Your task to perform on an android device: Open eBay Image 0: 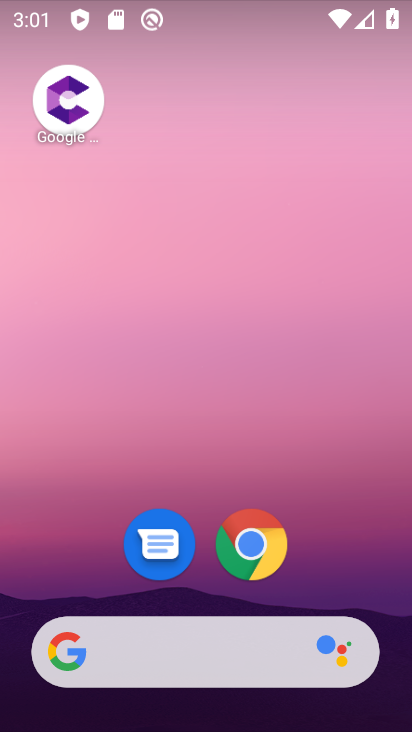
Step 0: click (253, 527)
Your task to perform on an android device: Open eBay Image 1: 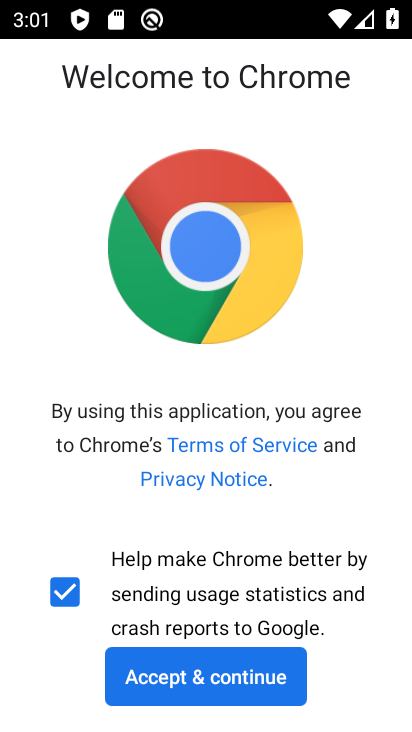
Step 1: click (248, 680)
Your task to perform on an android device: Open eBay Image 2: 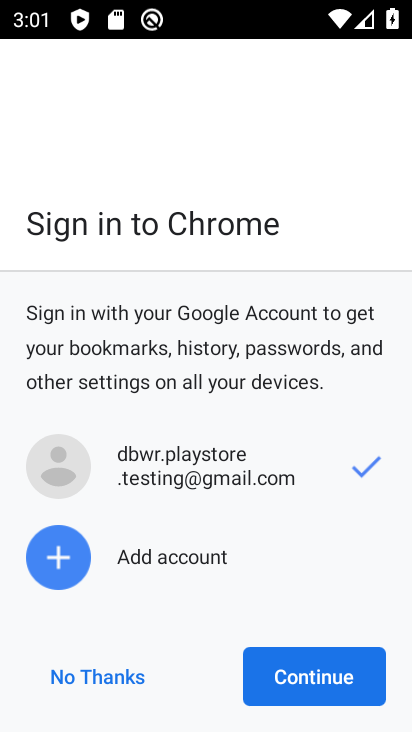
Step 2: click (239, 682)
Your task to perform on an android device: Open eBay Image 3: 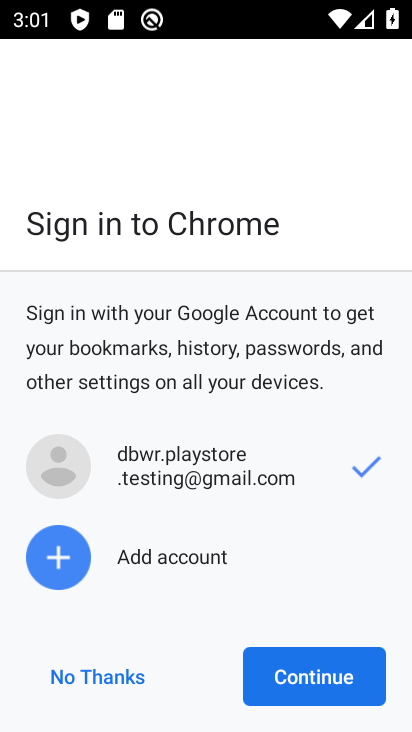
Step 3: click (298, 676)
Your task to perform on an android device: Open eBay Image 4: 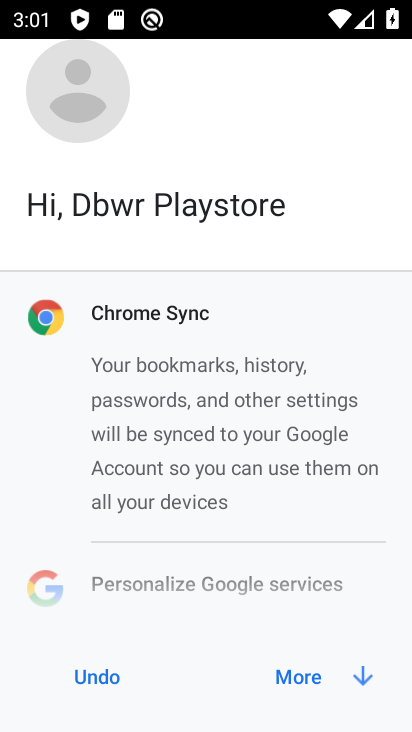
Step 4: click (298, 676)
Your task to perform on an android device: Open eBay Image 5: 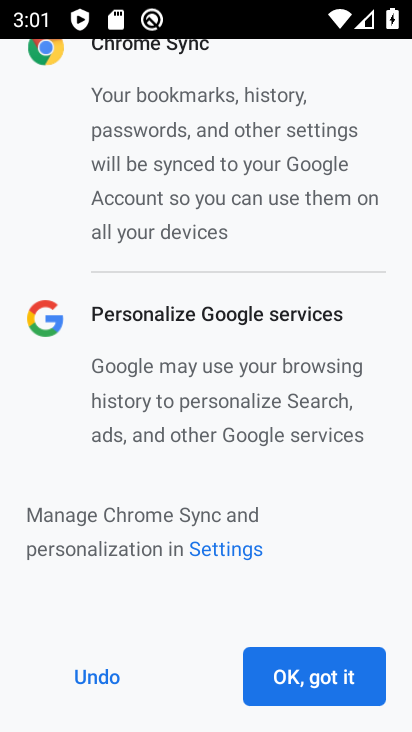
Step 5: click (298, 676)
Your task to perform on an android device: Open eBay Image 6: 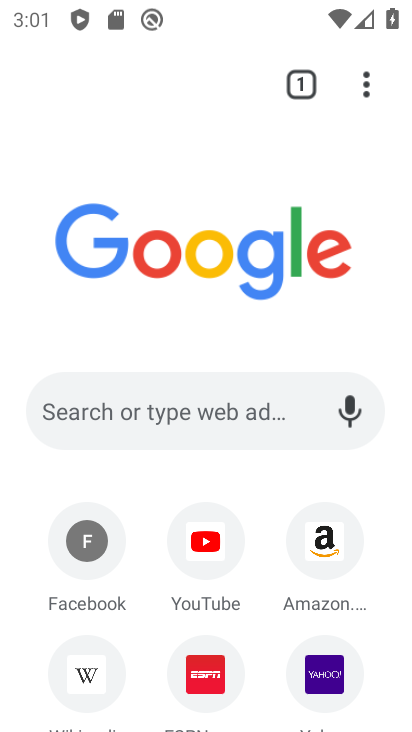
Step 6: click (218, 413)
Your task to perform on an android device: Open eBay Image 7: 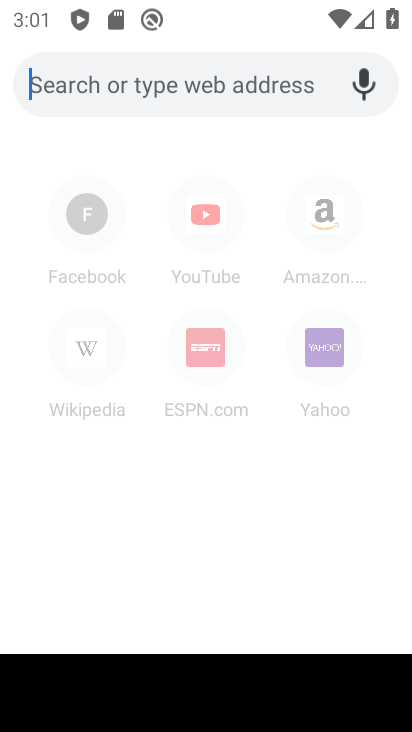
Step 7: type "eBay"
Your task to perform on an android device: Open eBay Image 8: 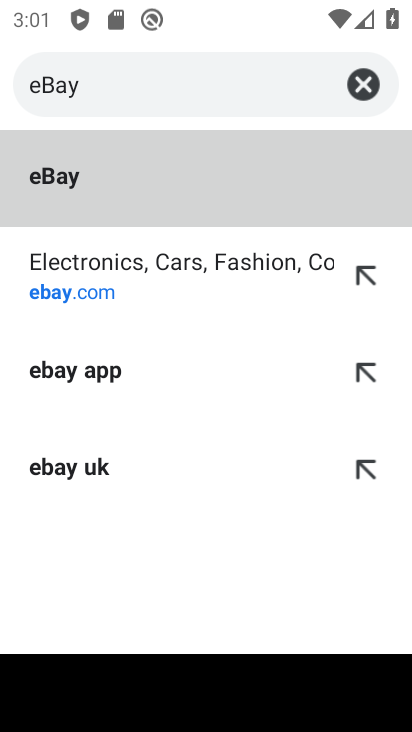
Step 8: click (111, 293)
Your task to perform on an android device: Open eBay Image 9: 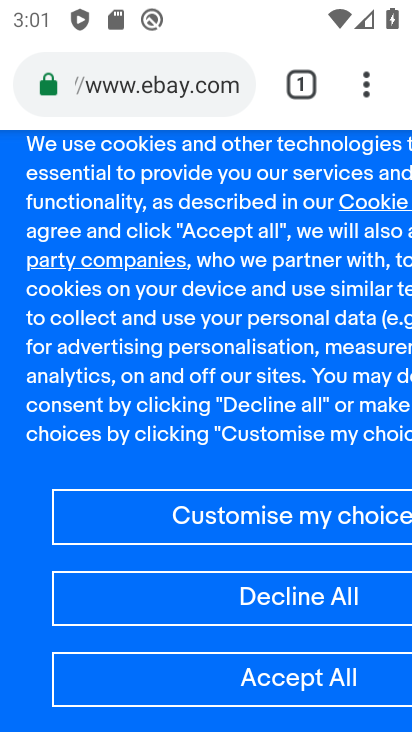
Step 9: task complete